Your task to perform on an android device: Go to display settings Image 0: 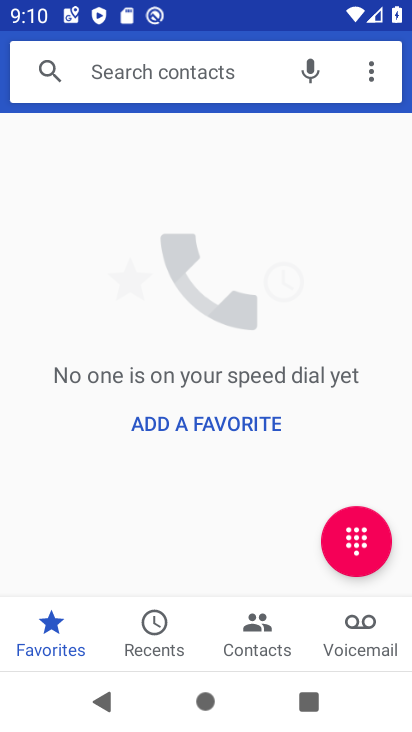
Step 0: press home button
Your task to perform on an android device: Go to display settings Image 1: 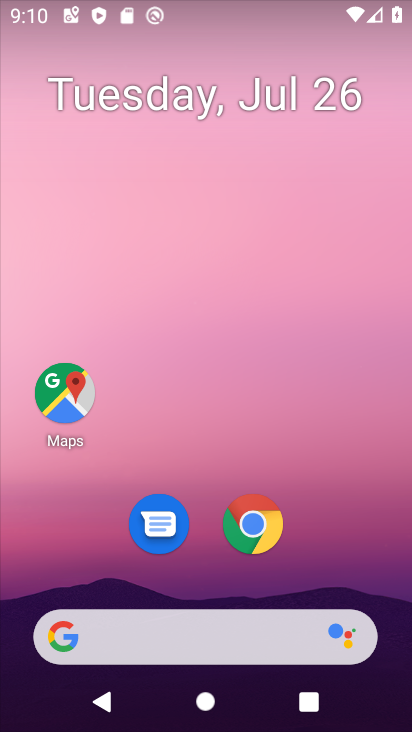
Step 1: drag from (191, 633) to (374, 59)
Your task to perform on an android device: Go to display settings Image 2: 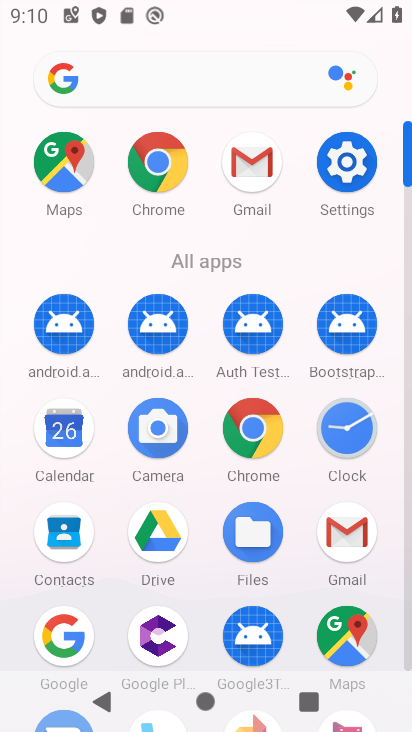
Step 2: click (347, 176)
Your task to perform on an android device: Go to display settings Image 3: 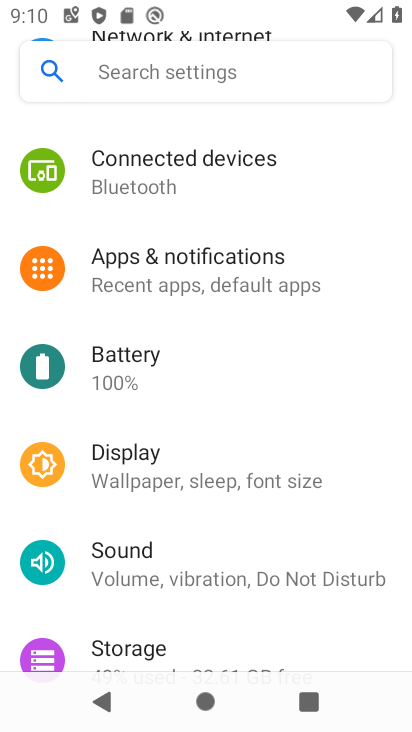
Step 3: click (175, 484)
Your task to perform on an android device: Go to display settings Image 4: 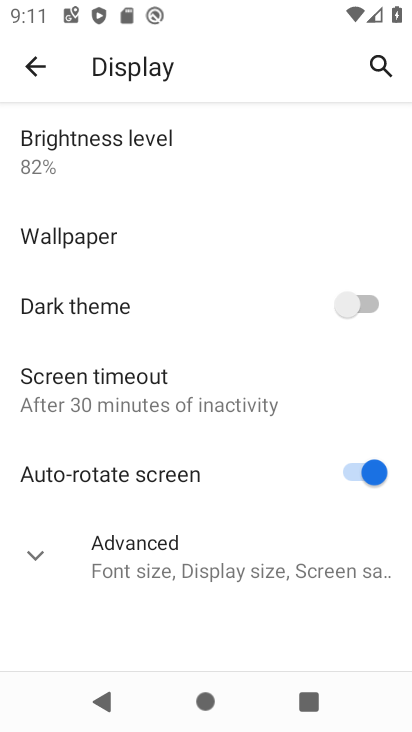
Step 4: task complete